Your task to perform on an android device: turn off location history Image 0: 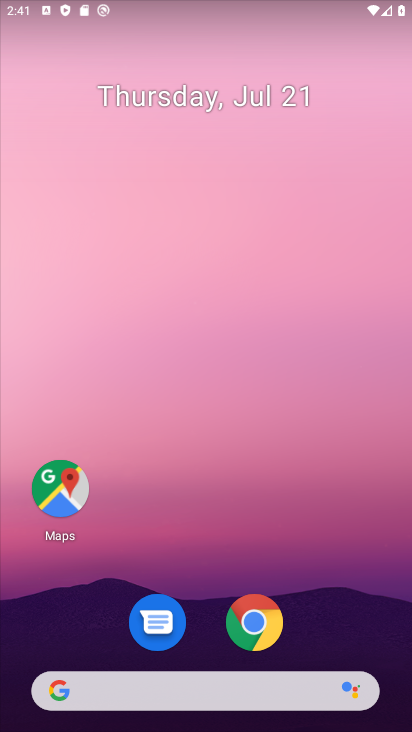
Step 0: drag from (271, 713) to (230, 84)
Your task to perform on an android device: turn off location history Image 1: 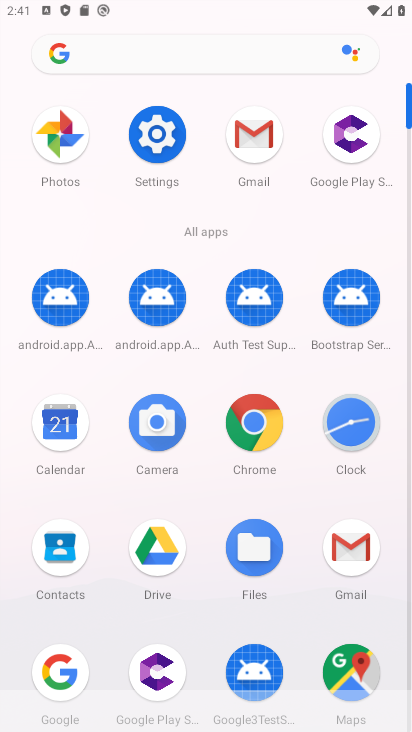
Step 1: click (151, 119)
Your task to perform on an android device: turn off location history Image 2: 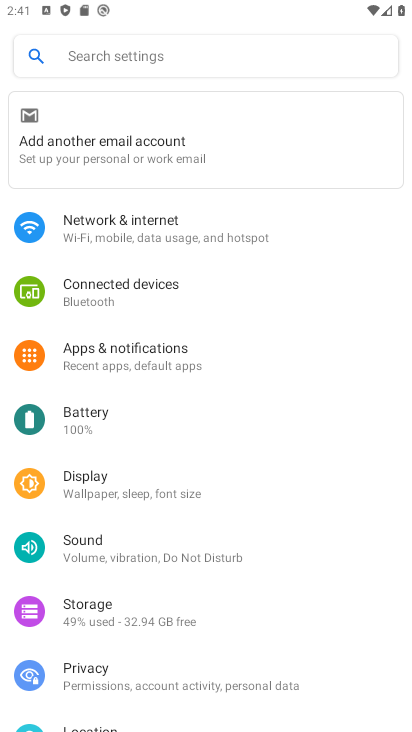
Step 2: click (119, 727)
Your task to perform on an android device: turn off location history Image 3: 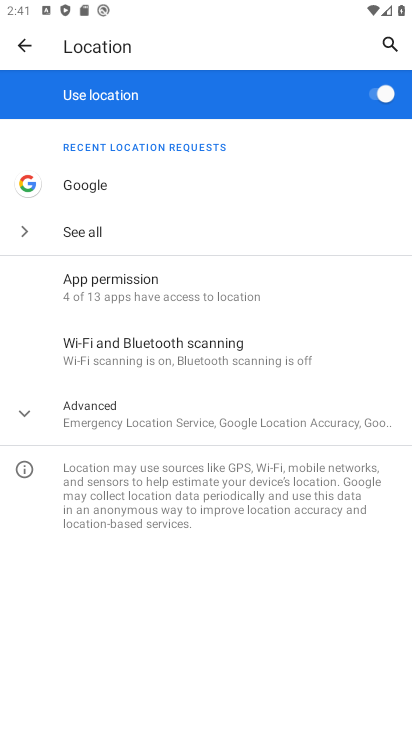
Step 3: click (92, 406)
Your task to perform on an android device: turn off location history Image 4: 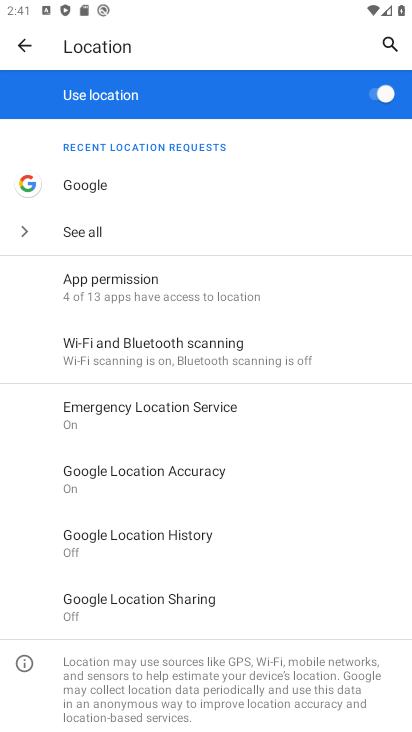
Step 4: click (159, 533)
Your task to perform on an android device: turn off location history Image 5: 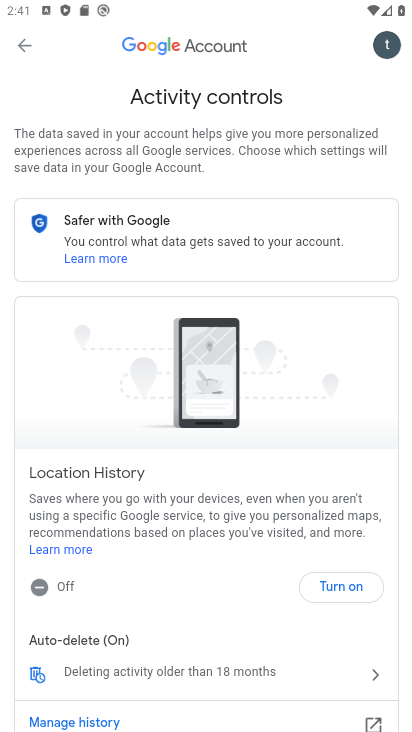
Step 5: drag from (123, 599) to (139, 234)
Your task to perform on an android device: turn off location history Image 6: 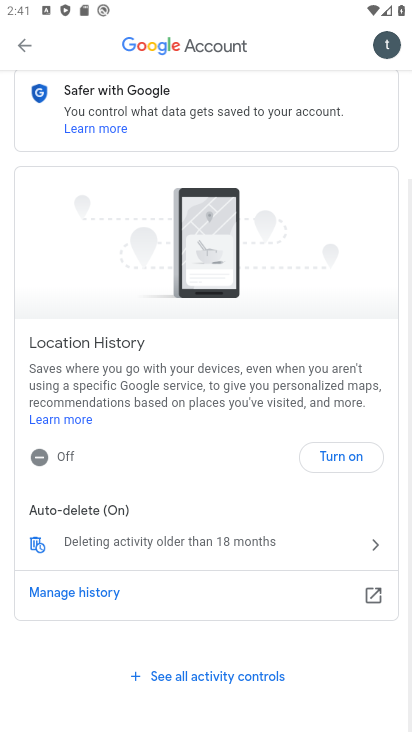
Step 6: drag from (190, 568) to (214, 475)
Your task to perform on an android device: turn off location history Image 7: 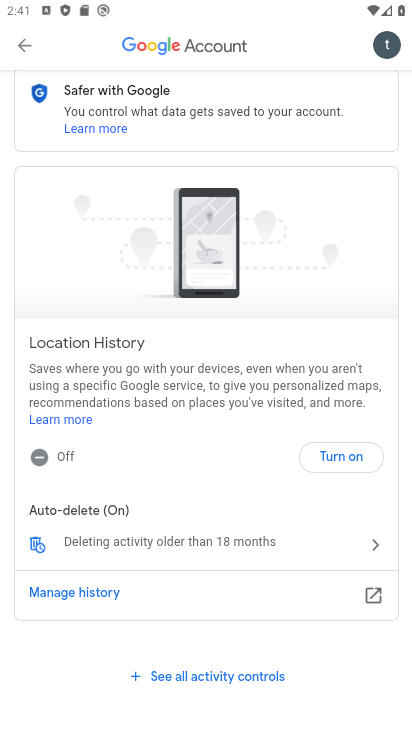
Step 7: click (45, 458)
Your task to perform on an android device: turn off location history Image 8: 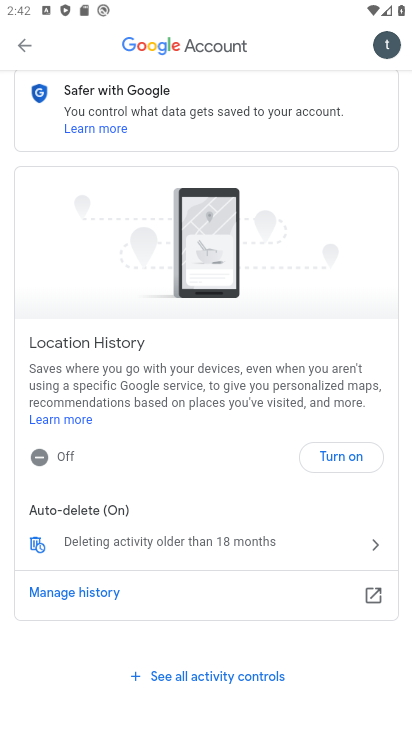
Step 8: task complete